Your task to perform on an android device: turn on improve location accuracy Image 0: 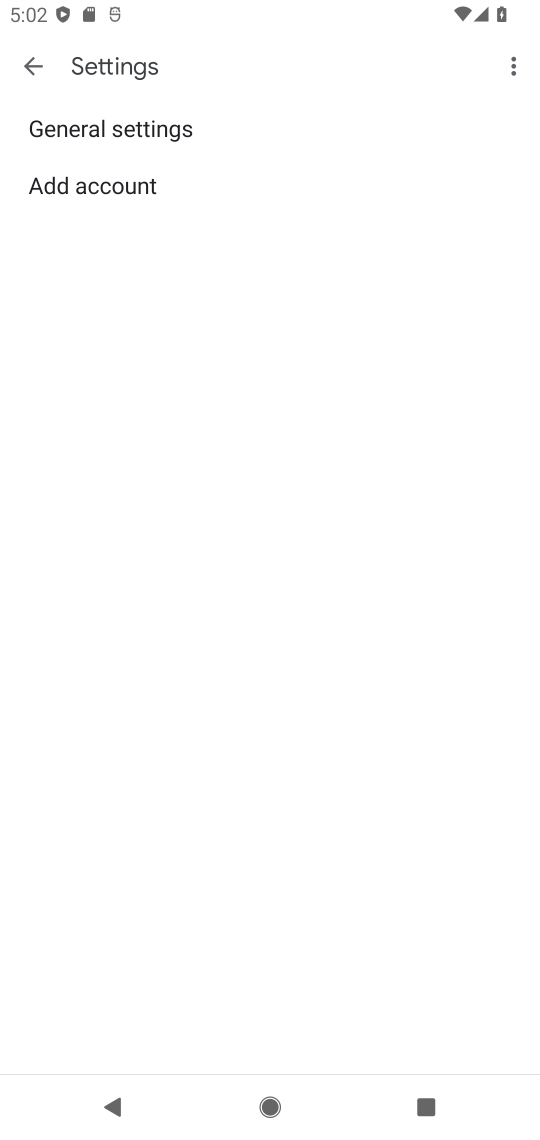
Step 0: press home button
Your task to perform on an android device: turn on improve location accuracy Image 1: 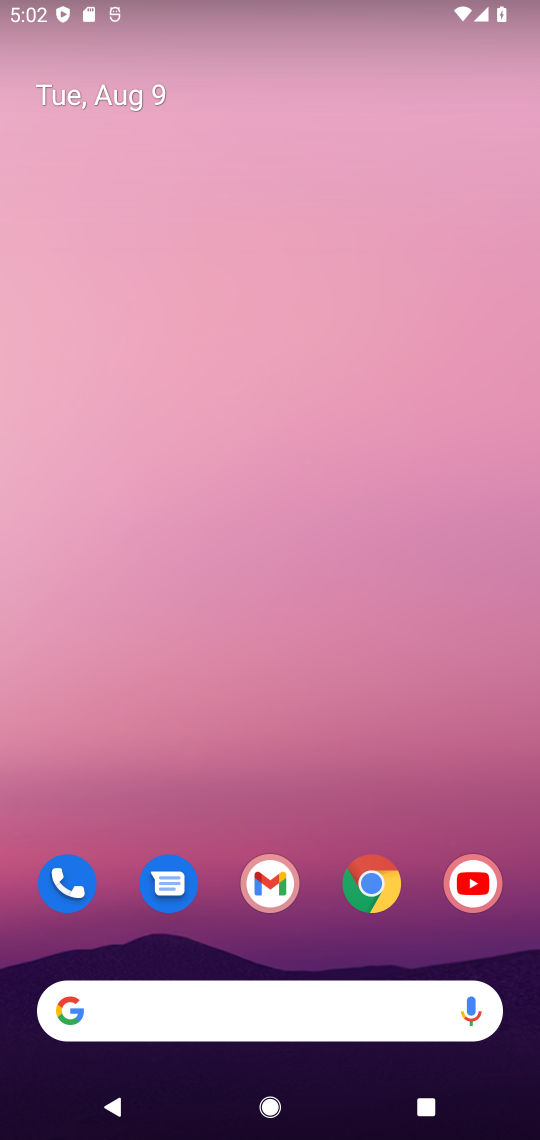
Step 1: drag from (245, 812) to (234, 195)
Your task to perform on an android device: turn on improve location accuracy Image 2: 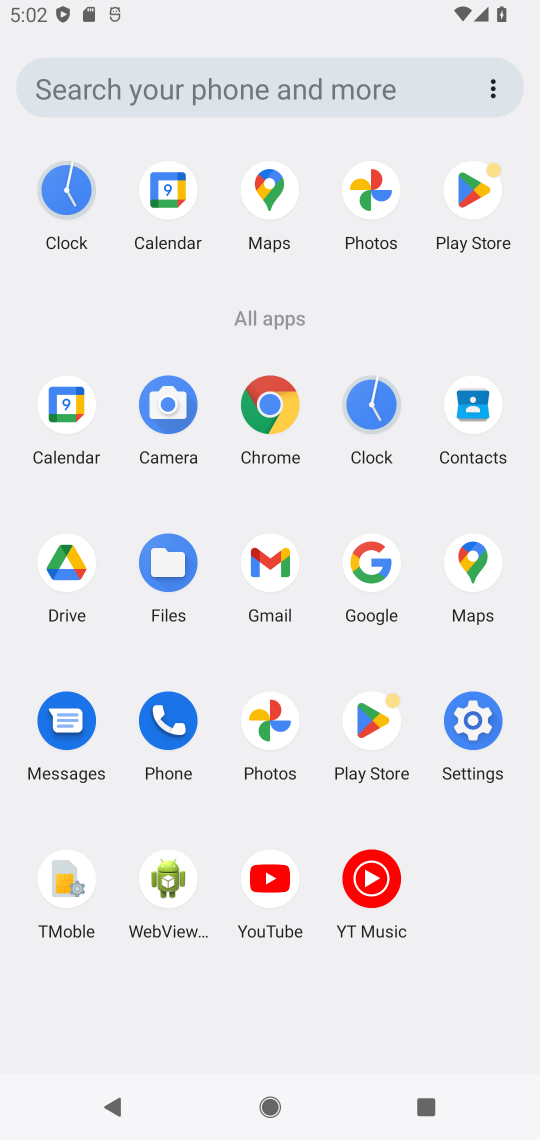
Step 2: click (459, 706)
Your task to perform on an android device: turn on improve location accuracy Image 3: 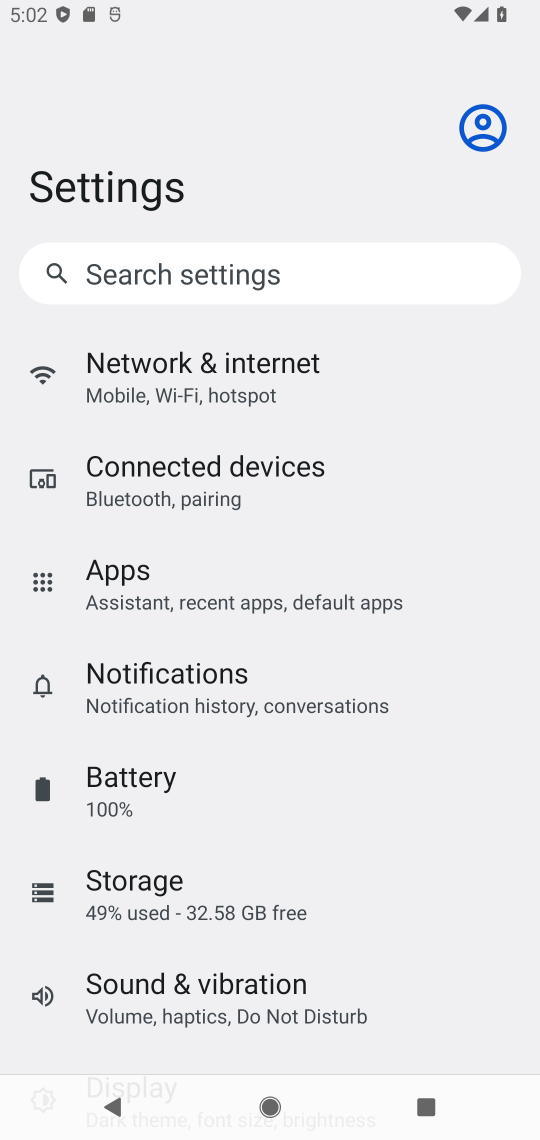
Step 3: drag from (253, 919) to (293, 389)
Your task to perform on an android device: turn on improve location accuracy Image 4: 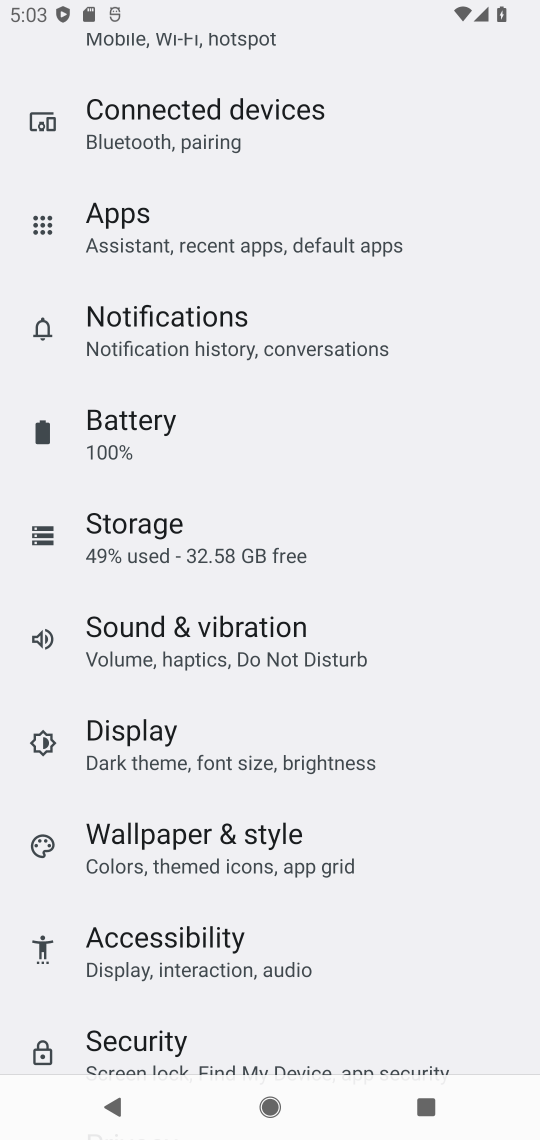
Step 4: drag from (230, 852) to (252, 369)
Your task to perform on an android device: turn on improve location accuracy Image 5: 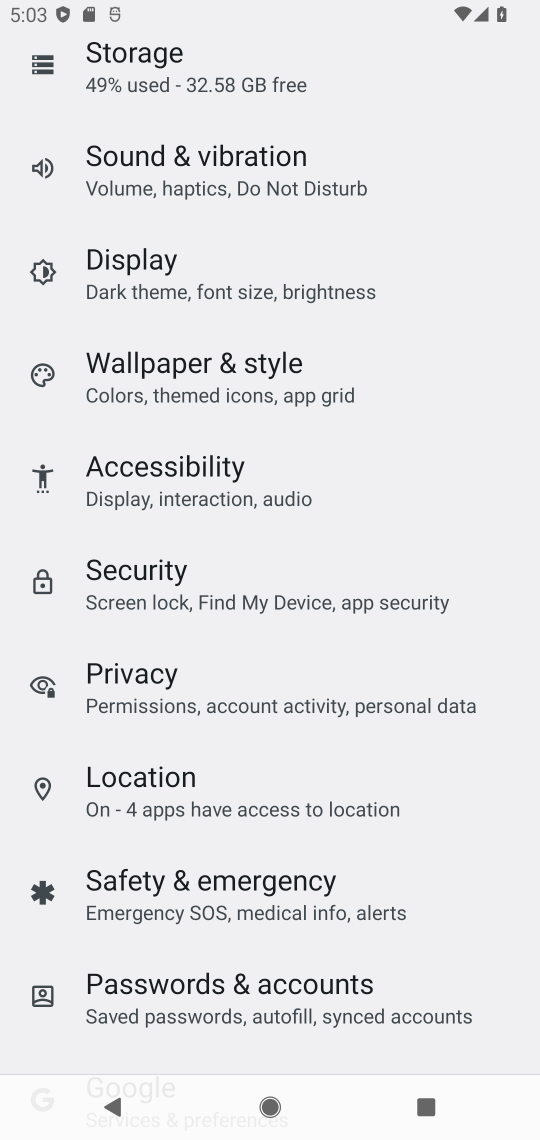
Step 5: click (168, 786)
Your task to perform on an android device: turn on improve location accuracy Image 6: 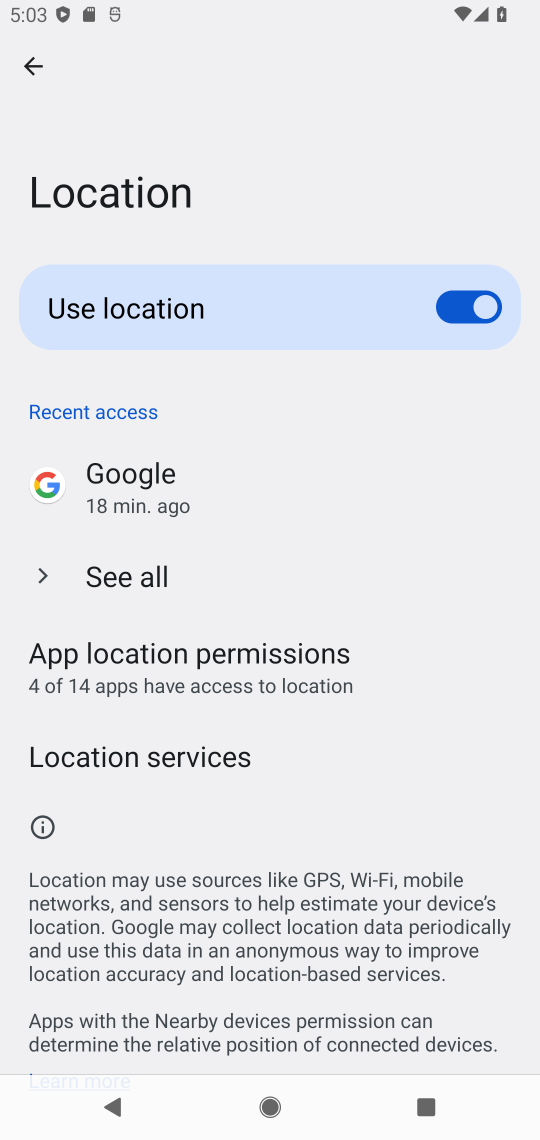
Step 6: drag from (267, 870) to (269, 417)
Your task to perform on an android device: turn on improve location accuracy Image 7: 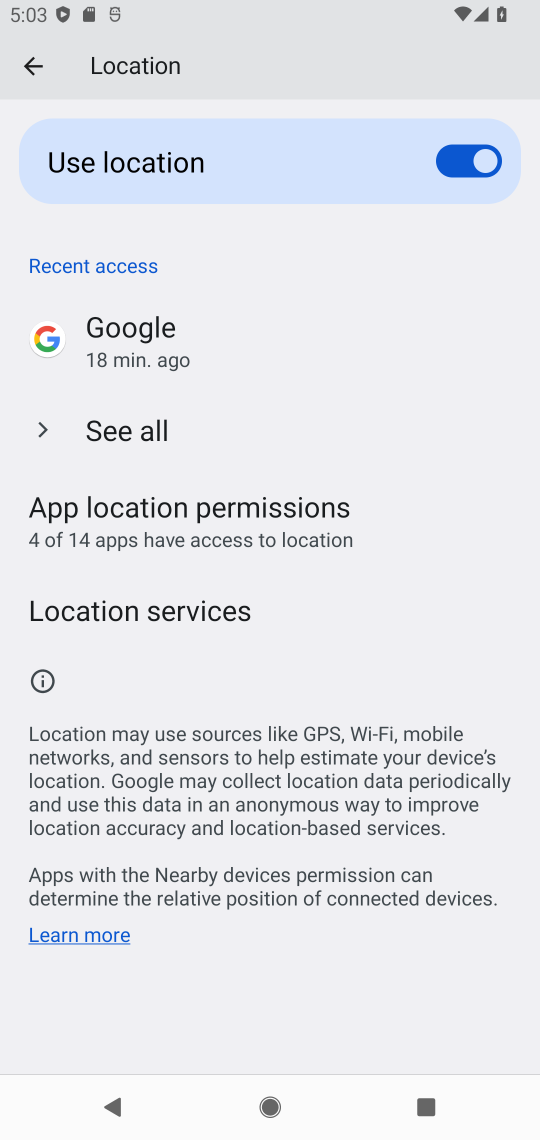
Step 7: click (179, 597)
Your task to perform on an android device: turn on improve location accuracy Image 8: 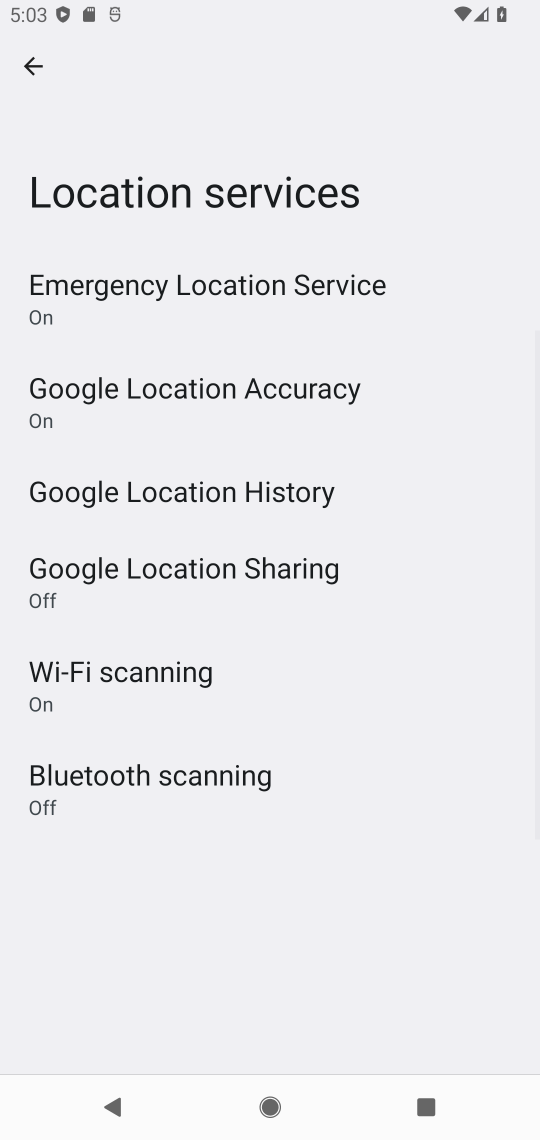
Step 8: click (332, 405)
Your task to perform on an android device: turn on improve location accuracy Image 9: 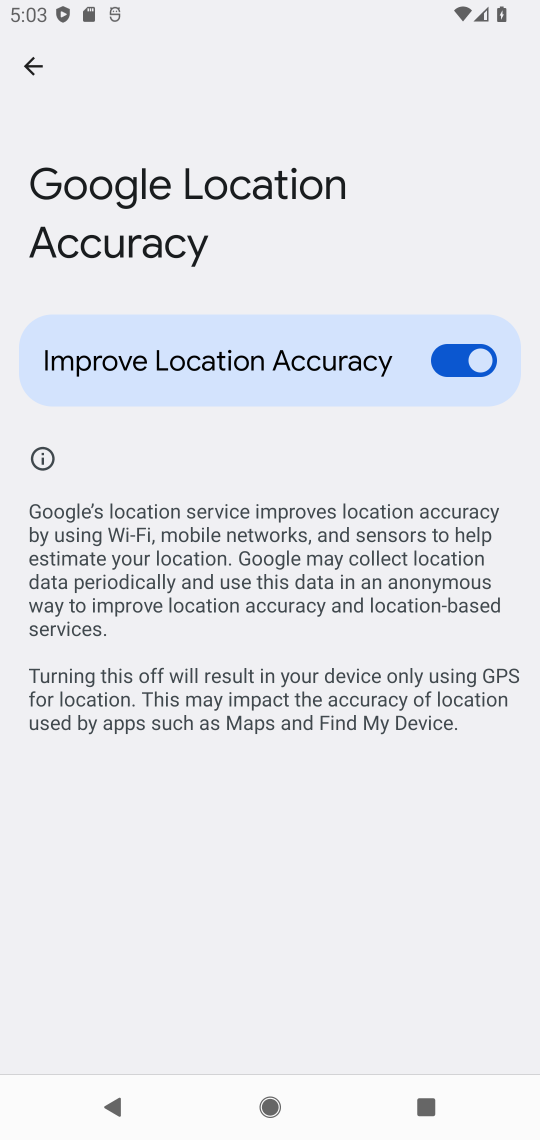
Step 9: task complete